Your task to perform on an android device: toggle show notifications on the lock screen Image 0: 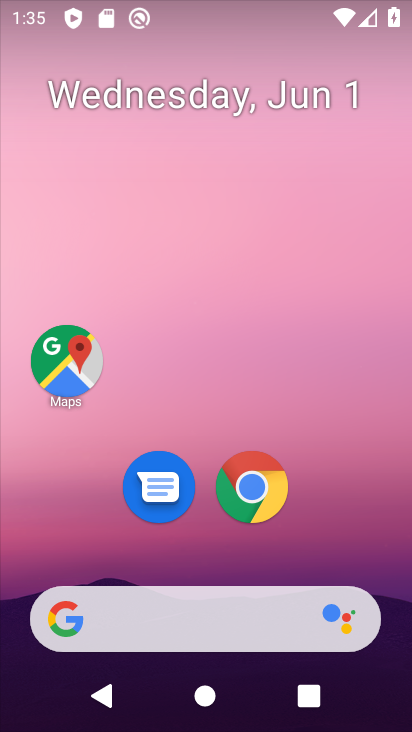
Step 0: drag from (347, 541) to (347, 108)
Your task to perform on an android device: toggle show notifications on the lock screen Image 1: 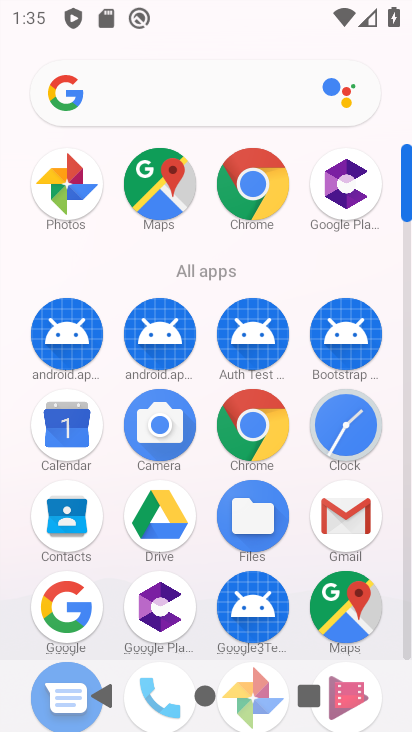
Step 1: drag from (391, 554) to (390, 179)
Your task to perform on an android device: toggle show notifications on the lock screen Image 2: 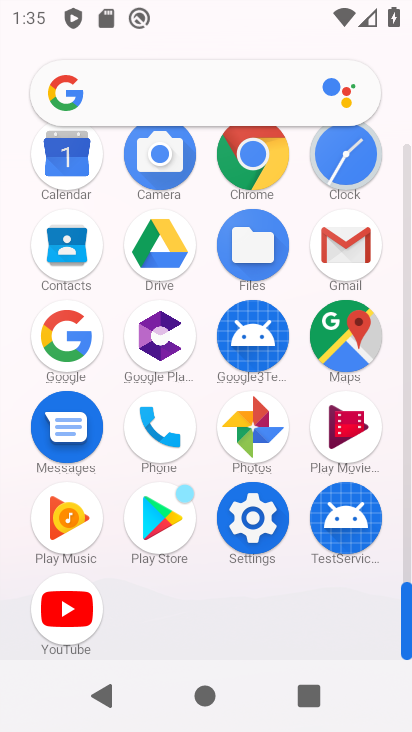
Step 2: click (241, 546)
Your task to perform on an android device: toggle show notifications on the lock screen Image 3: 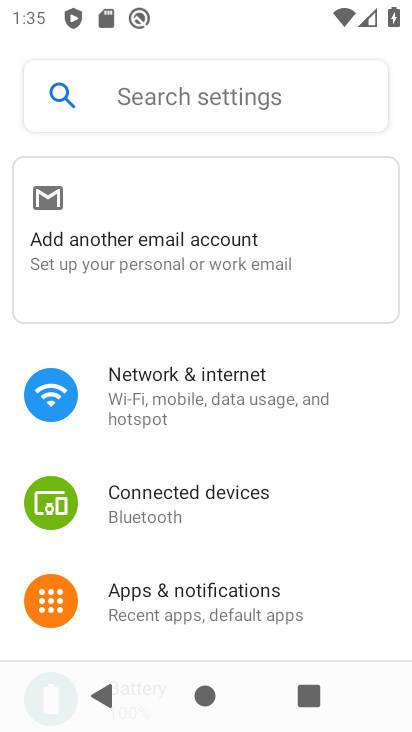
Step 3: drag from (347, 566) to (366, 390)
Your task to perform on an android device: toggle show notifications on the lock screen Image 4: 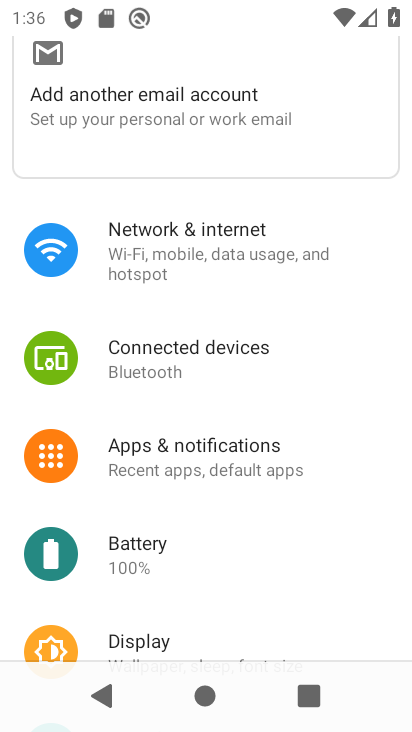
Step 4: click (231, 459)
Your task to perform on an android device: toggle show notifications on the lock screen Image 5: 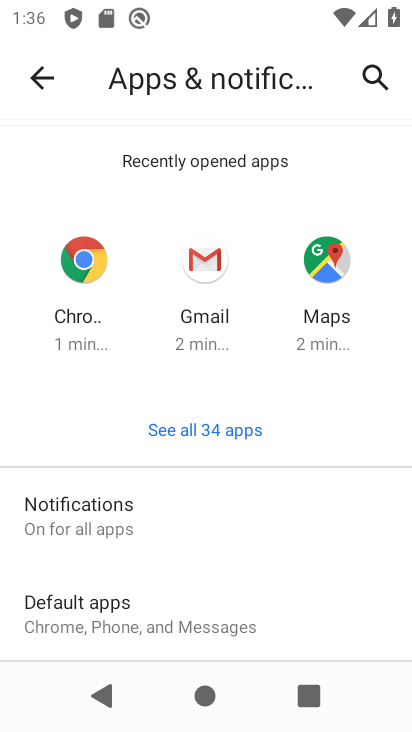
Step 5: click (111, 521)
Your task to perform on an android device: toggle show notifications on the lock screen Image 6: 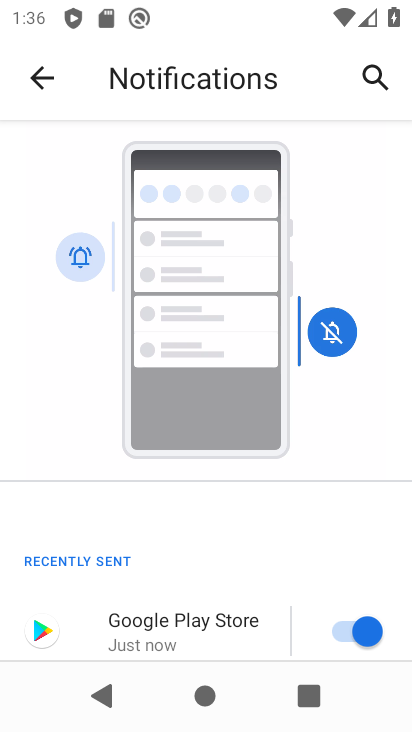
Step 6: drag from (287, 551) to (280, 280)
Your task to perform on an android device: toggle show notifications on the lock screen Image 7: 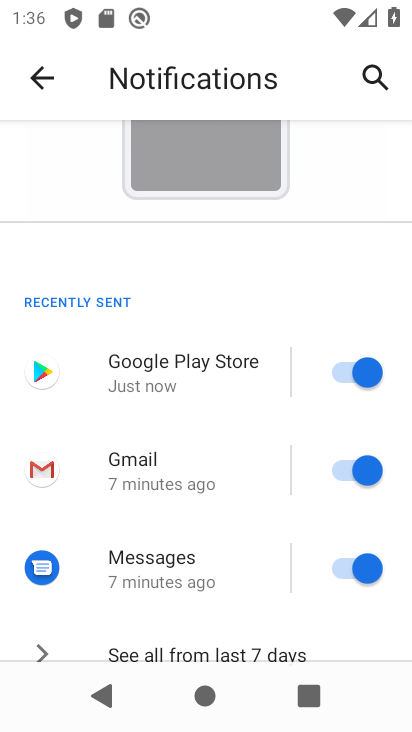
Step 7: drag from (263, 565) to (262, 381)
Your task to perform on an android device: toggle show notifications on the lock screen Image 8: 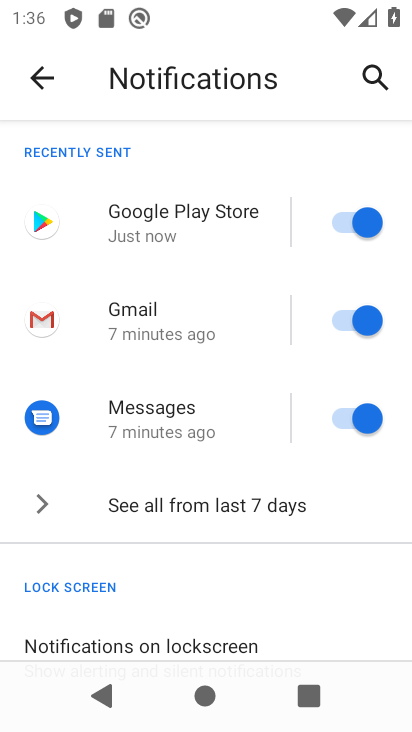
Step 8: drag from (266, 572) to (256, 404)
Your task to perform on an android device: toggle show notifications on the lock screen Image 9: 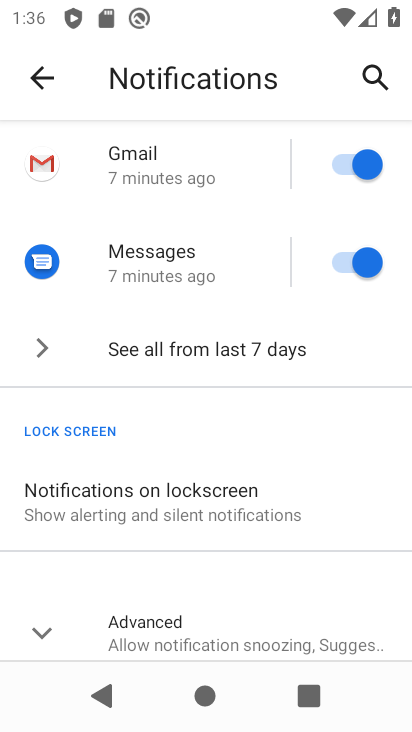
Step 9: click (251, 490)
Your task to perform on an android device: toggle show notifications on the lock screen Image 10: 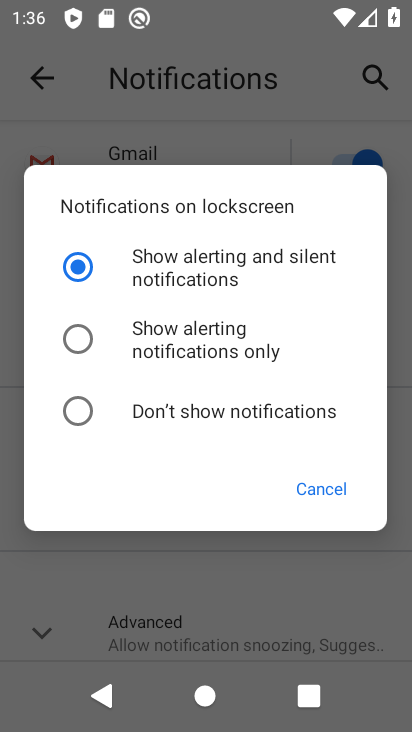
Step 10: click (245, 325)
Your task to perform on an android device: toggle show notifications on the lock screen Image 11: 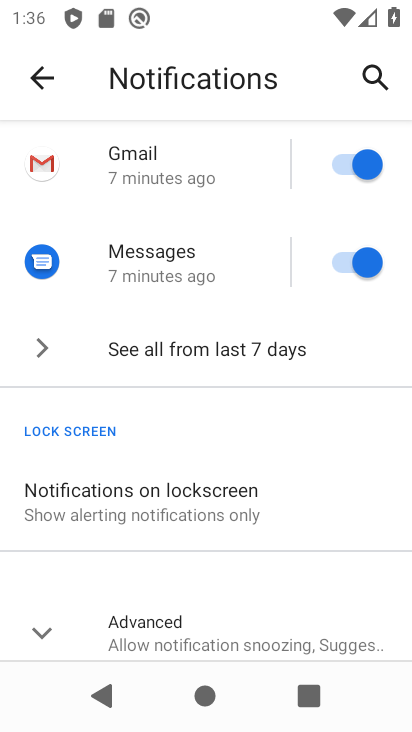
Step 11: task complete